Your task to perform on an android device: Open Google Maps Image 0: 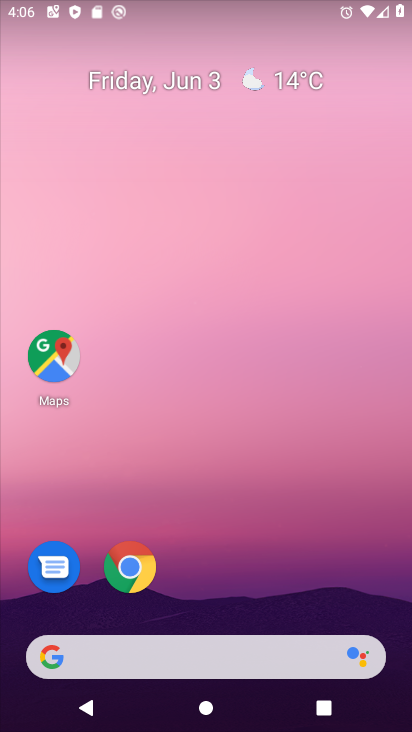
Step 0: drag from (259, 563) to (195, 164)
Your task to perform on an android device: Open Google Maps Image 1: 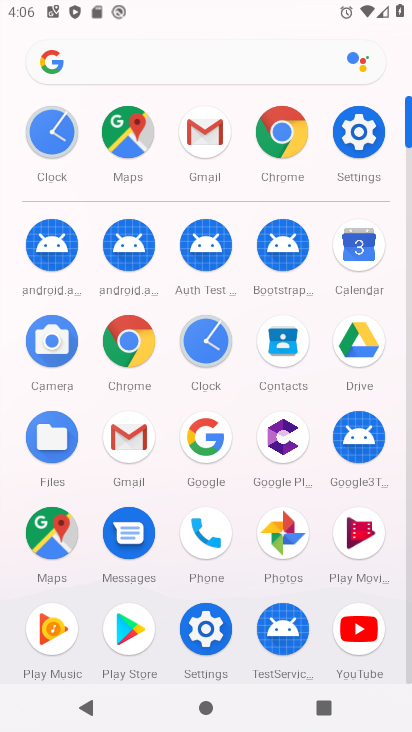
Step 1: click (52, 530)
Your task to perform on an android device: Open Google Maps Image 2: 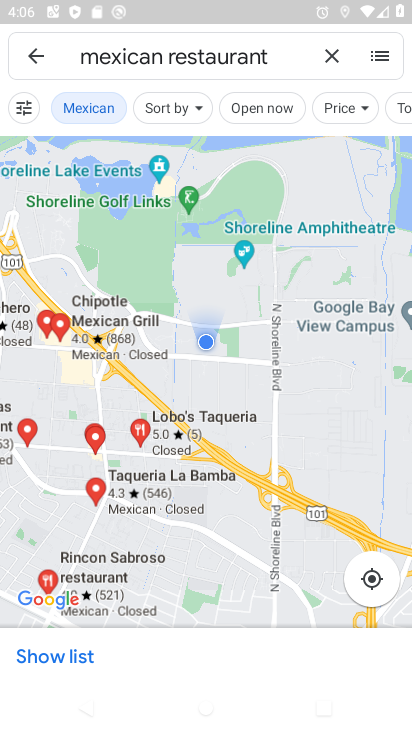
Step 2: click (27, 49)
Your task to perform on an android device: Open Google Maps Image 3: 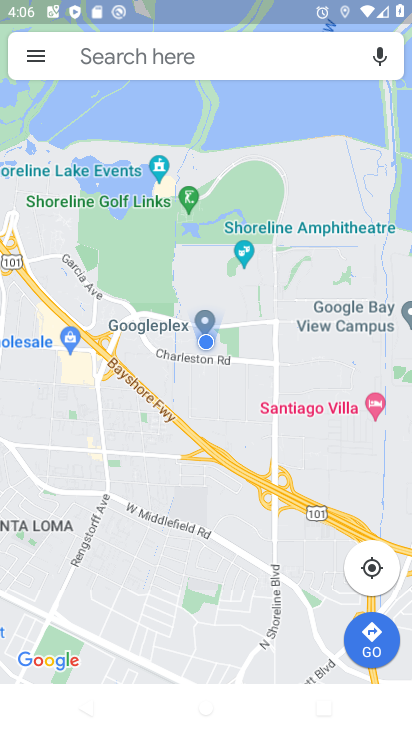
Step 3: click (371, 561)
Your task to perform on an android device: Open Google Maps Image 4: 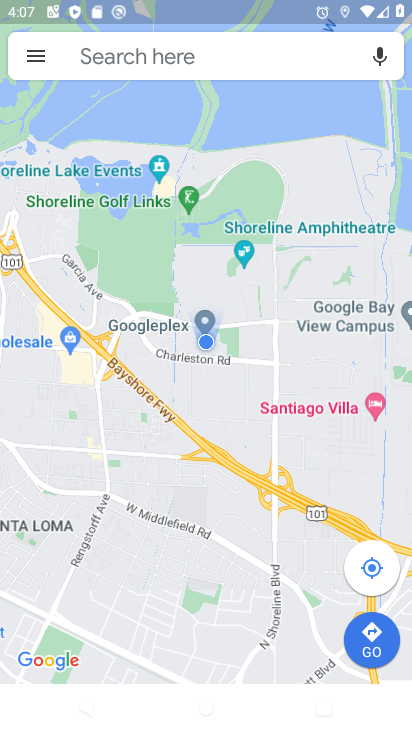
Step 4: task complete